Your task to perform on an android device: Go to Android settings Image 0: 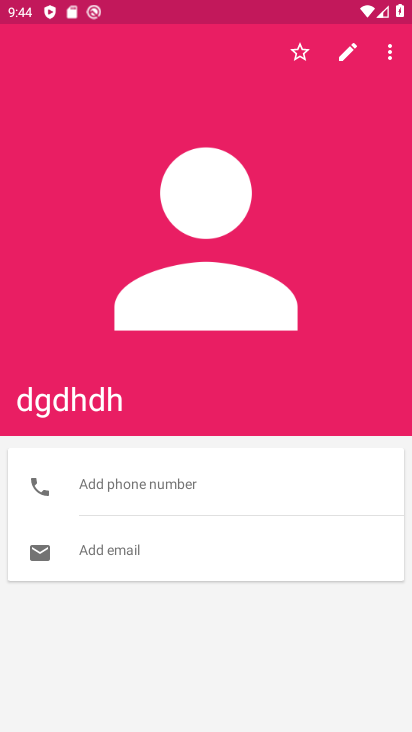
Step 0: press home button
Your task to perform on an android device: Go to Android settings Image 1: 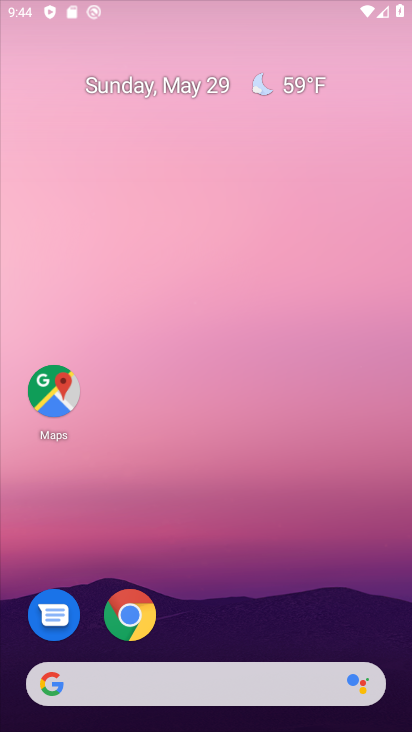
Step 1: drag from (231, 605) to (229, 109)
Your task to perform on an android device: Go to Android settings Image 2: 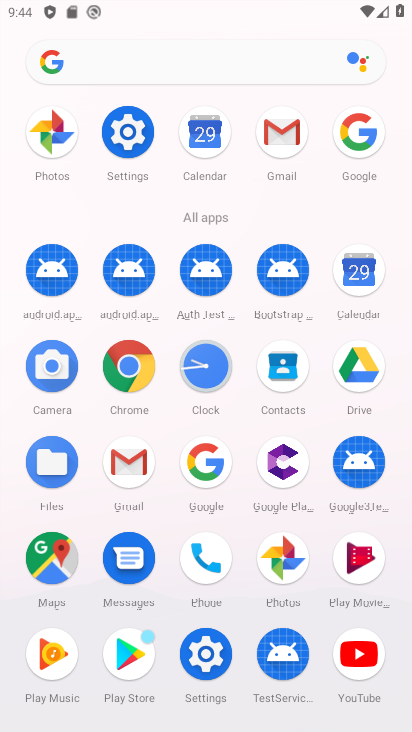
Step 2: click (134, 134)
Your task to perform on an android device: Go to Android settings Image 3: 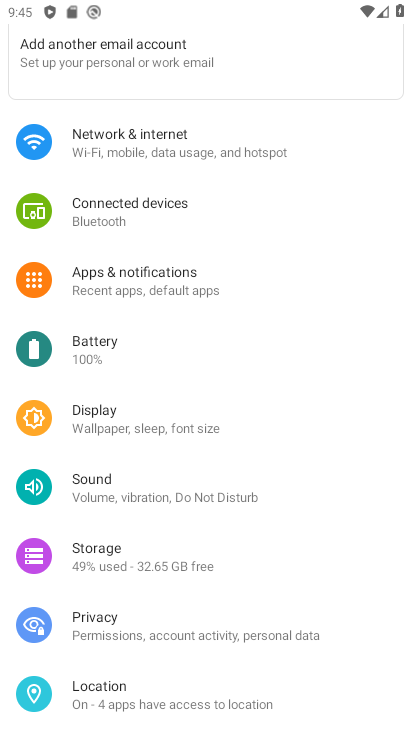
Step 3: task complete